Your task to perform on an android device: Go to settings Image 0: 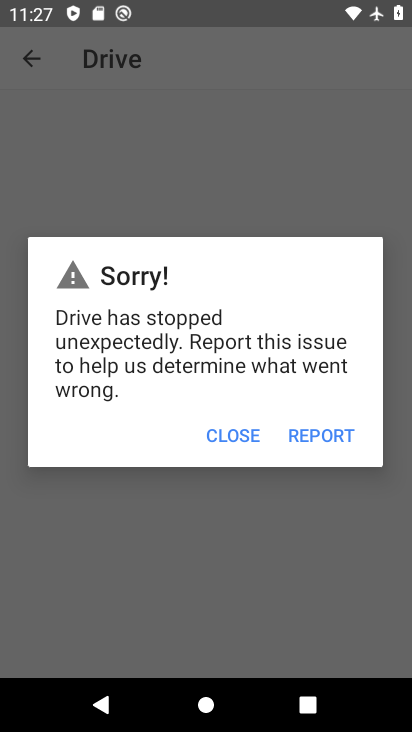
Step 0: press home button
Your task to perform on an android device: Go to settings Image 1: 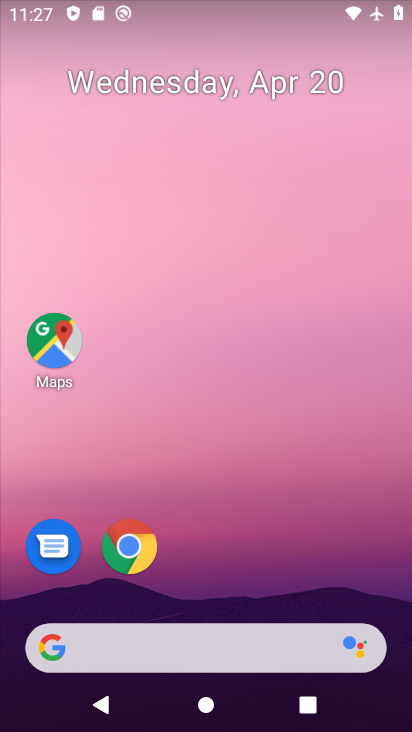
Step 1: drag from (180, 626) to (358, 96)
Your task to perform on an android device: Go to settings Image 2: 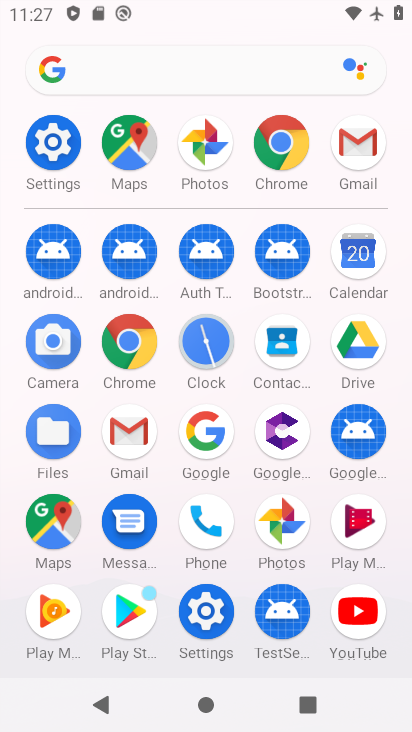
Step 2: click (51, 146)
Your task to perform on an android device: Go to settings Image 3: 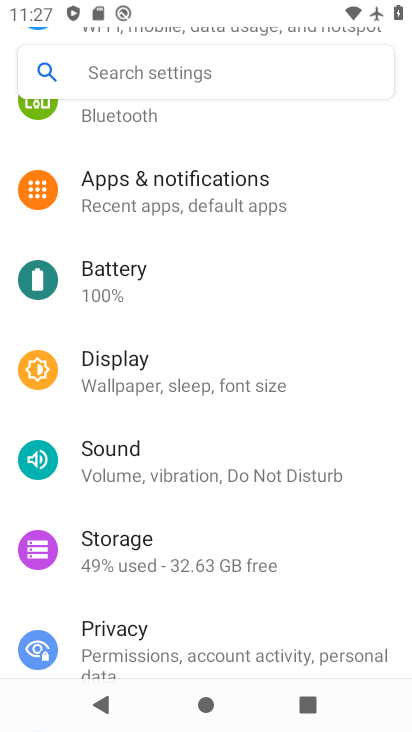
Step 3: task complete